Your task to perform on an android device: uninstall "Microsoft Authenticator" Image 0: 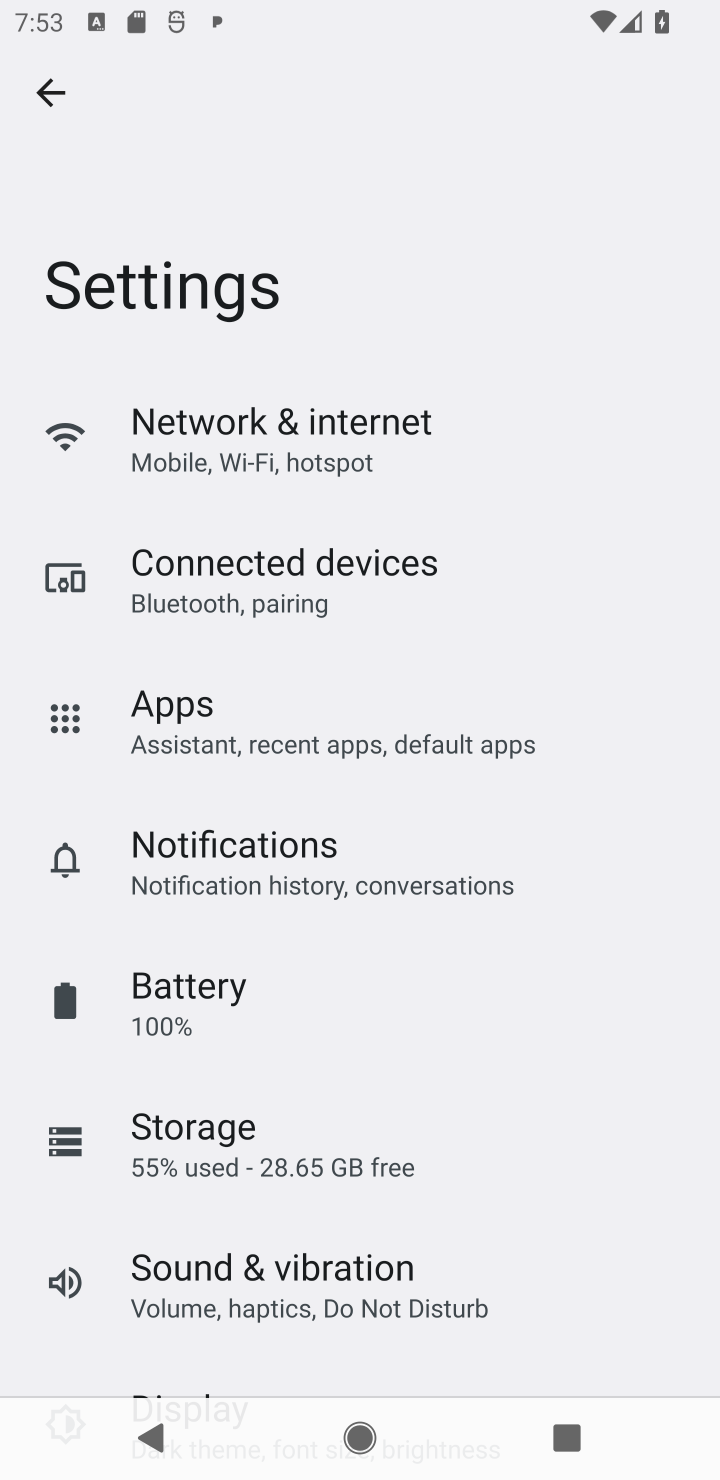
Step 0: press home button
Your task to perform on an android device: uninstall "Microsoft Authenticator" Image 1: 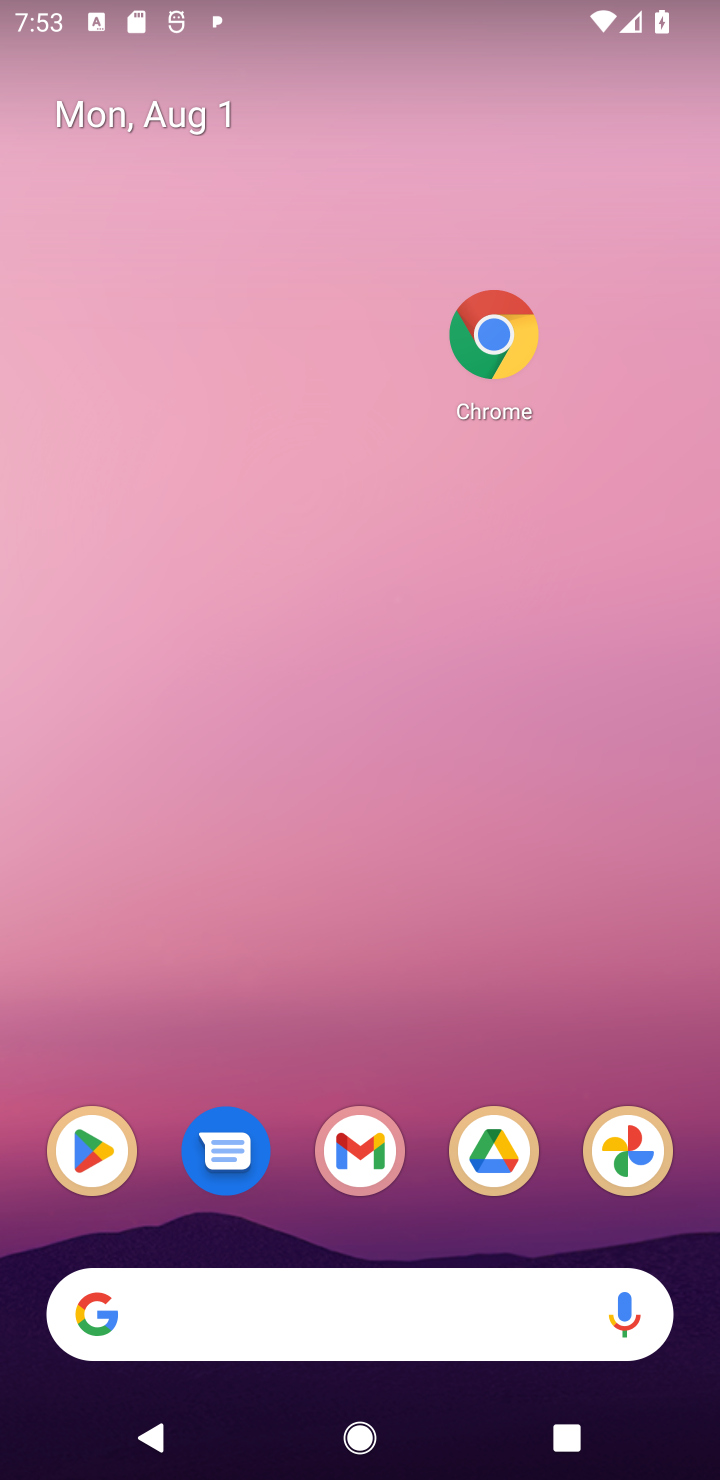
Step 1: click (88, 1148)
Your task to perform on an android device: uninstall "Microsoft Authenticator" Image 2: 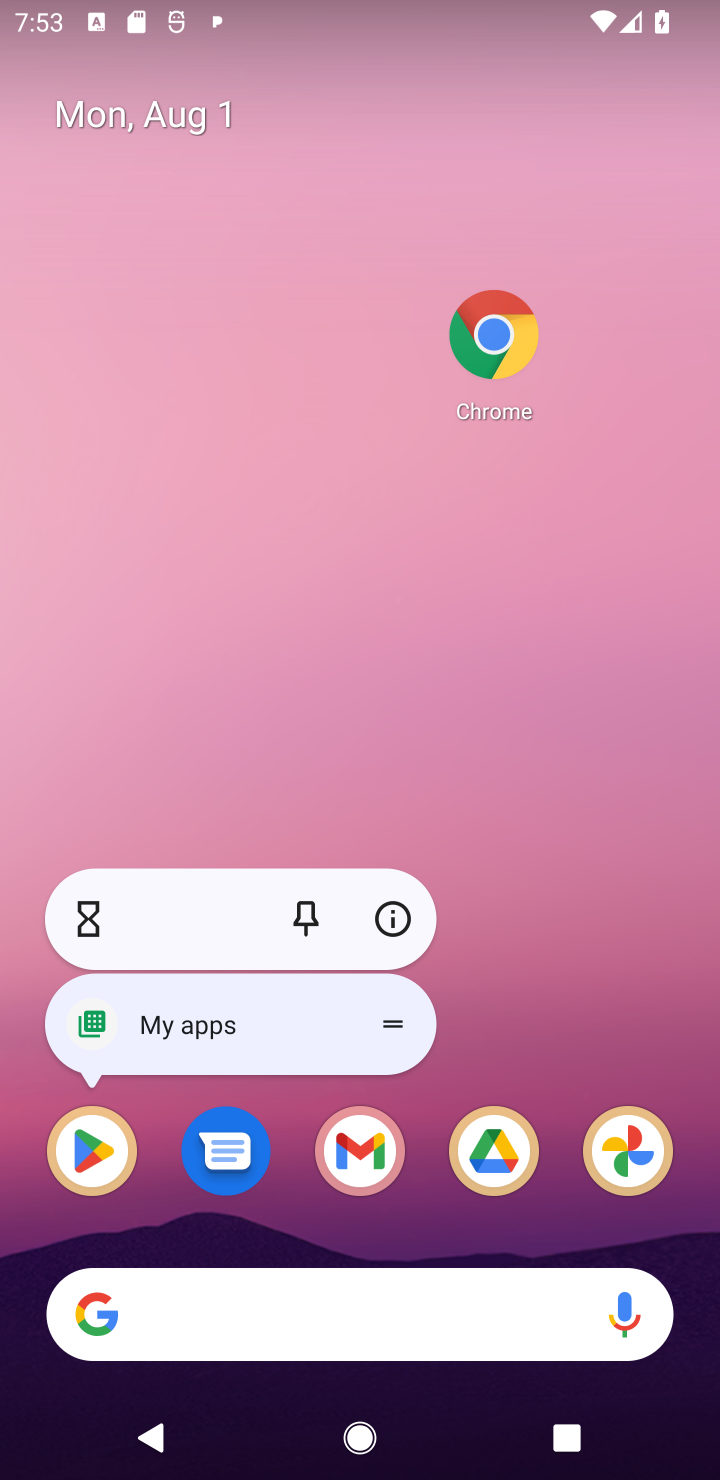
Step 2: click (95, 1161)
Your task to perform on an android device: uninstall "Microsoft Authenticator" Image 3: 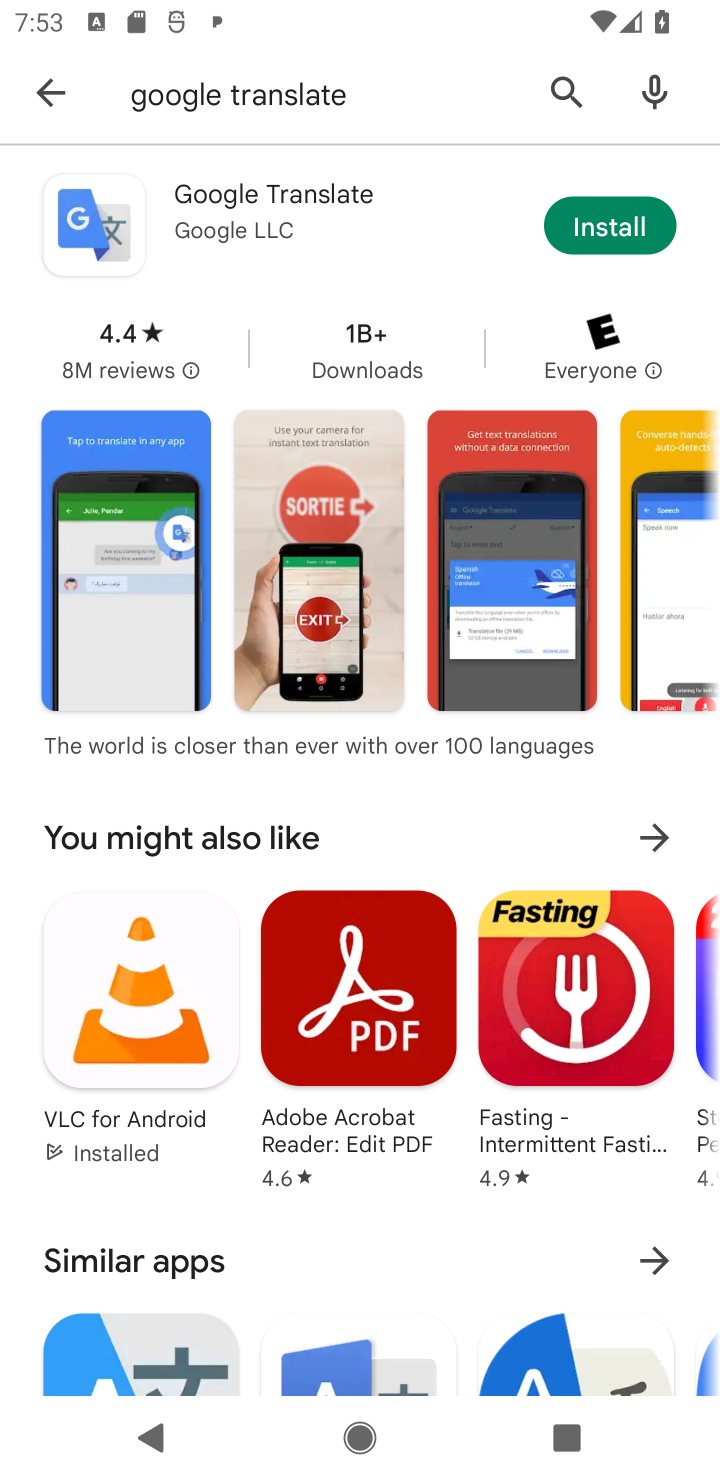
Step 3: click (569, 92)
Your task to perform on an android device: uninstall "Microsoft Authenticator" Image 4: 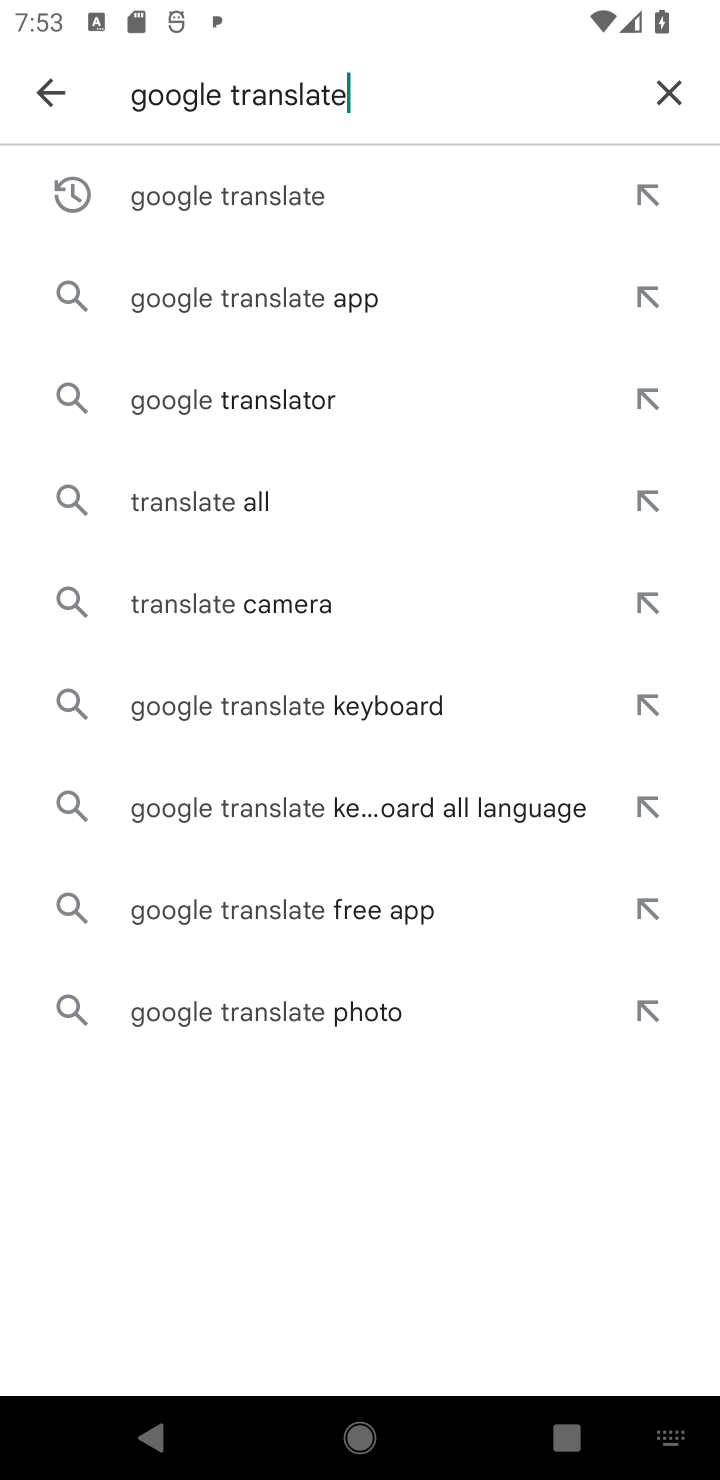
Step 4: click (679, 98)
Your task to perform on an android device: uninstall "Microsoft Authenticator" Image 5: 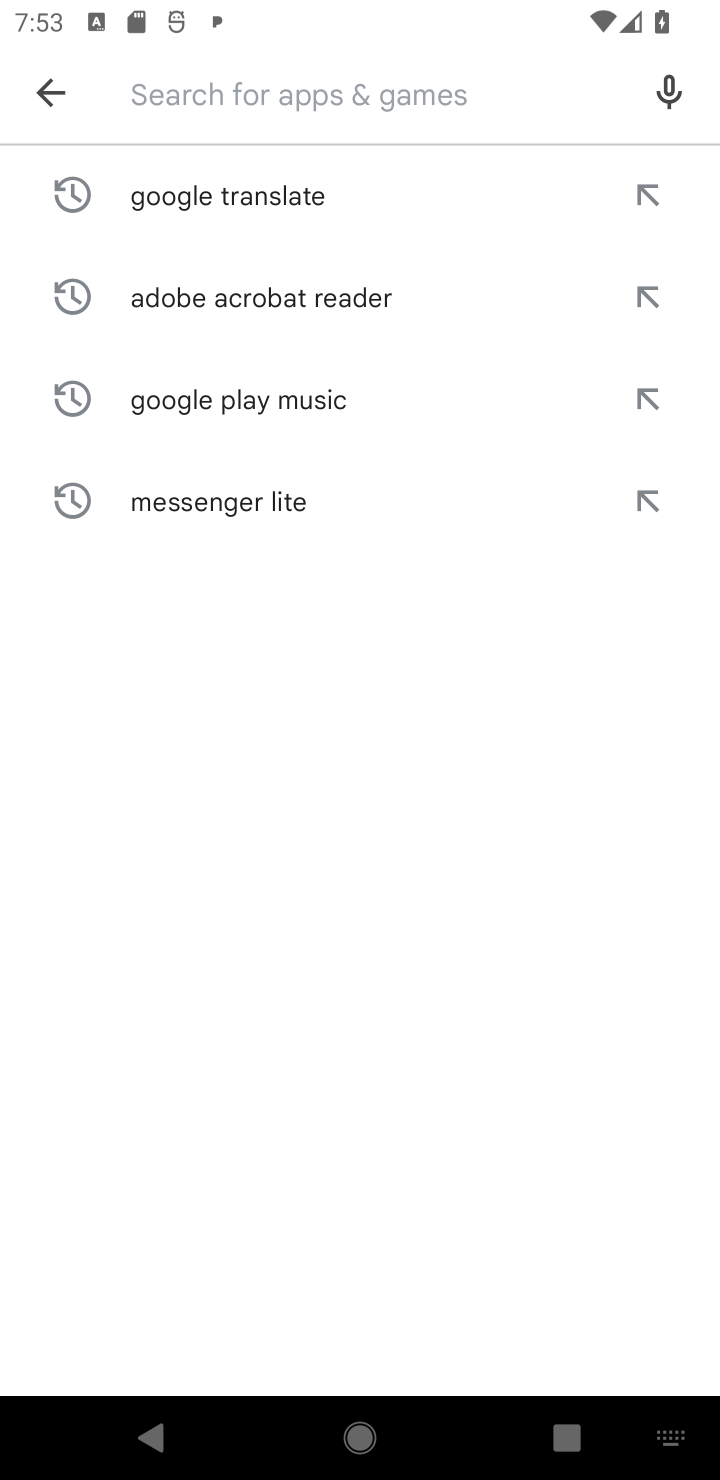
Step 5: type "Microsoft Authenticator"
Your task to perform on an android device: uninstall "Microsoft Authenticator" Image 6: 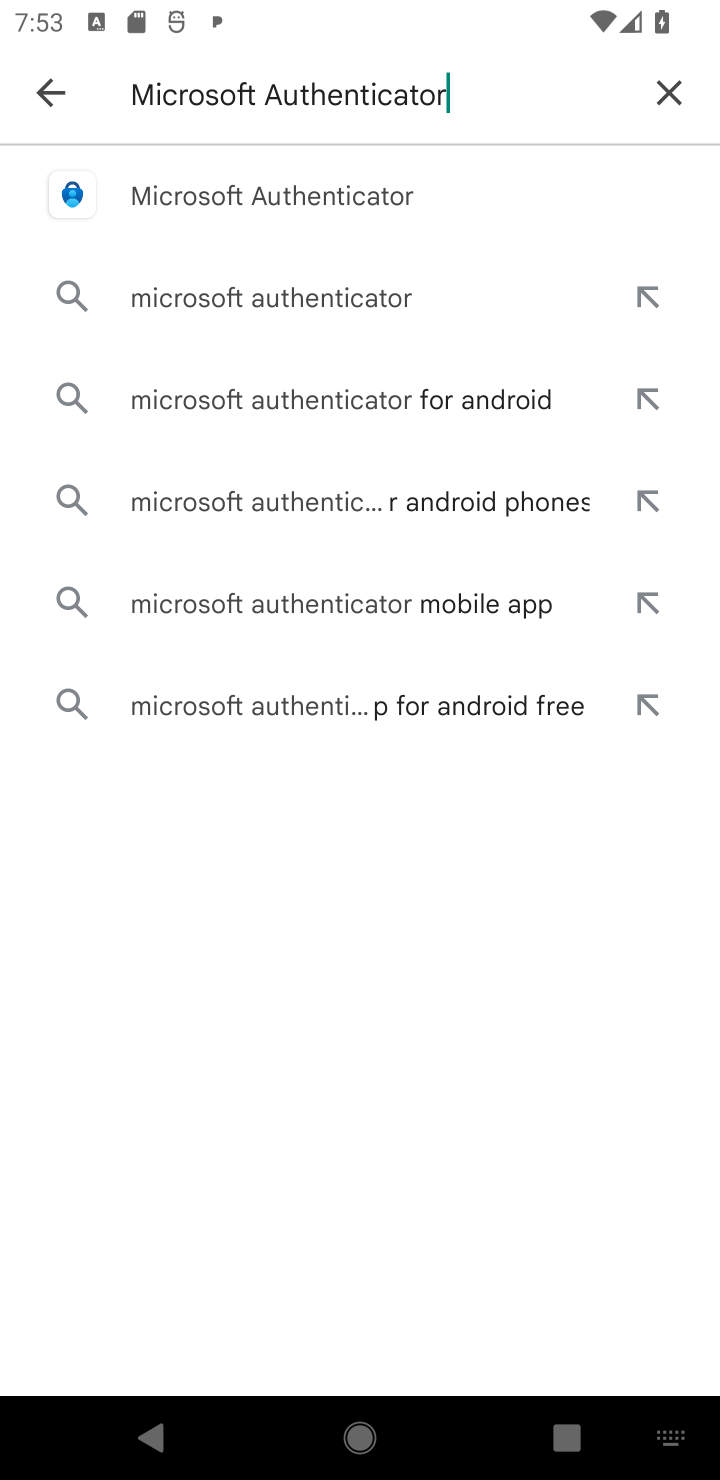
Step 6: click (296, 201)
Your task to perform on an android device: uninstall "Microsoft Authenticator" Image 7: 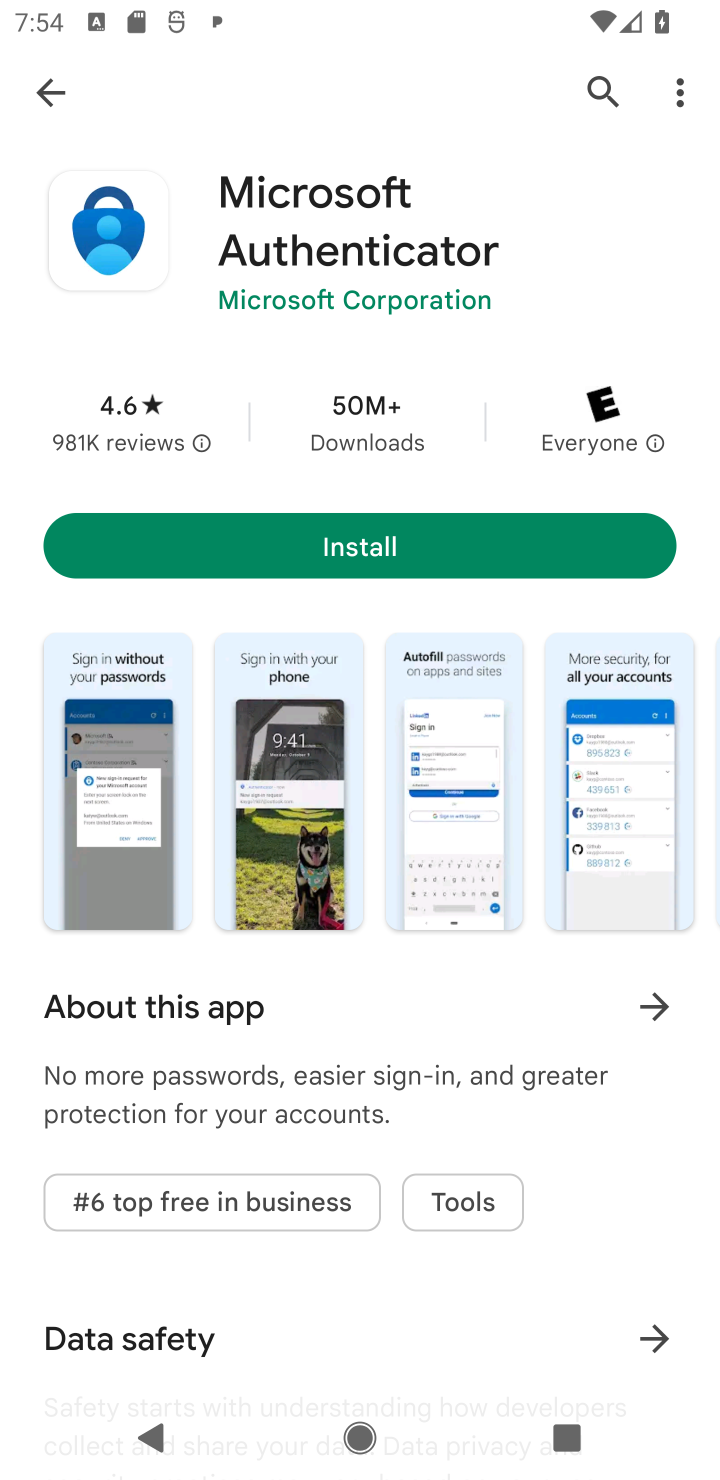
Step 7: task complete